Your task to perform on an android device: Show the shopping cart on newegg.com. Add "razer naga" to the cart on newegg.com, then select checkout. Image 0: 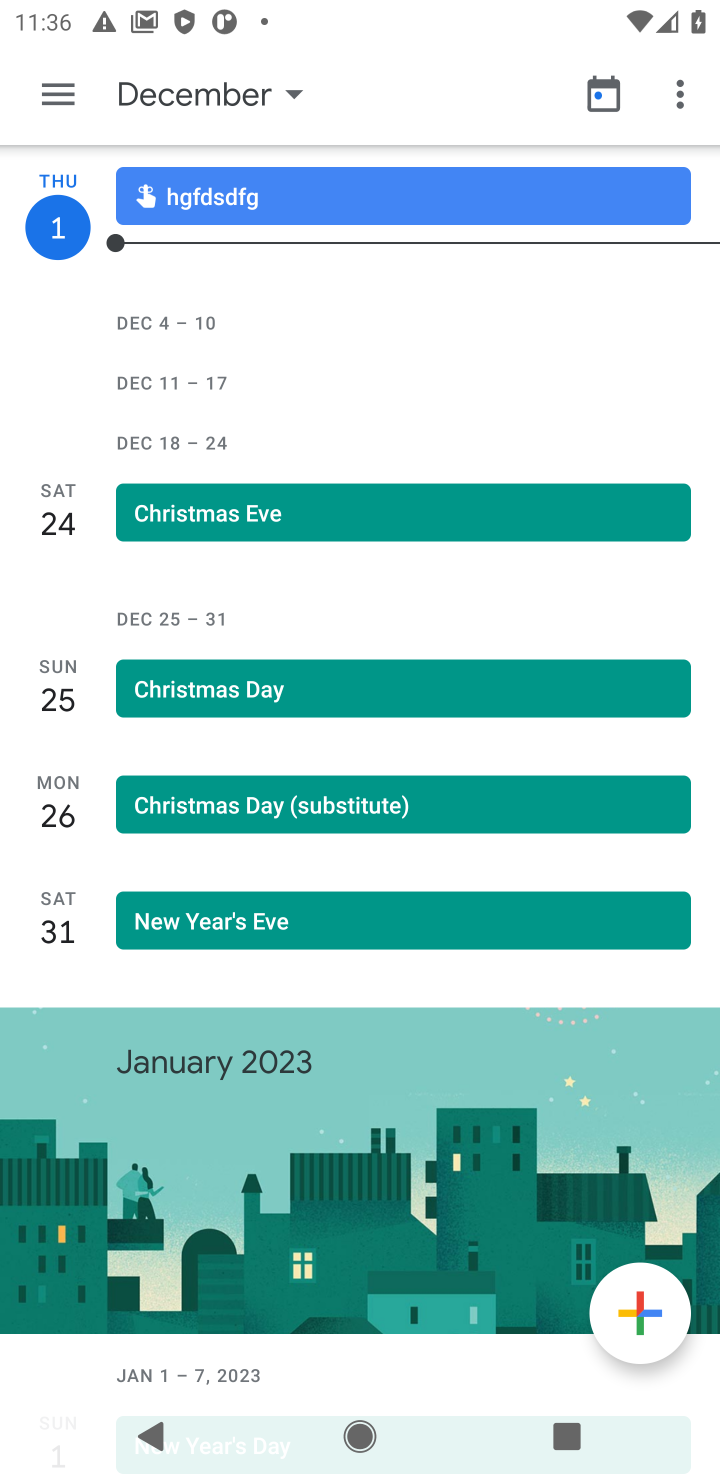
Step 0: press home button
Your task to perform on an android device: Show the shopping cart on newegg.com. Add "razer naga" to the cart on newegg.com, then select checkout. Image 1: 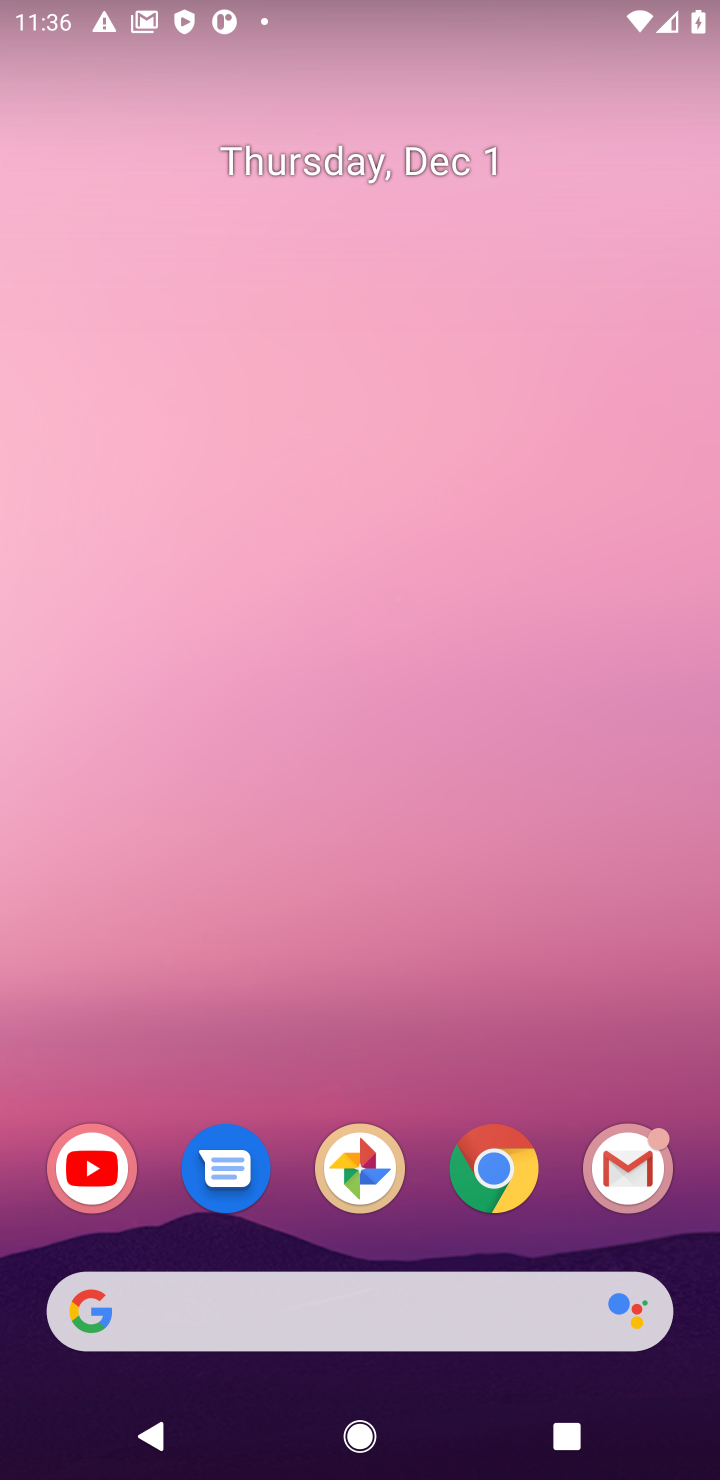
Step 1: click (496, 1175)
Your task to perform on an android device: Show the shopping cart on newegg.com. Add "razer naga" to the cart on newegg.com, then select checkout. Image 2: 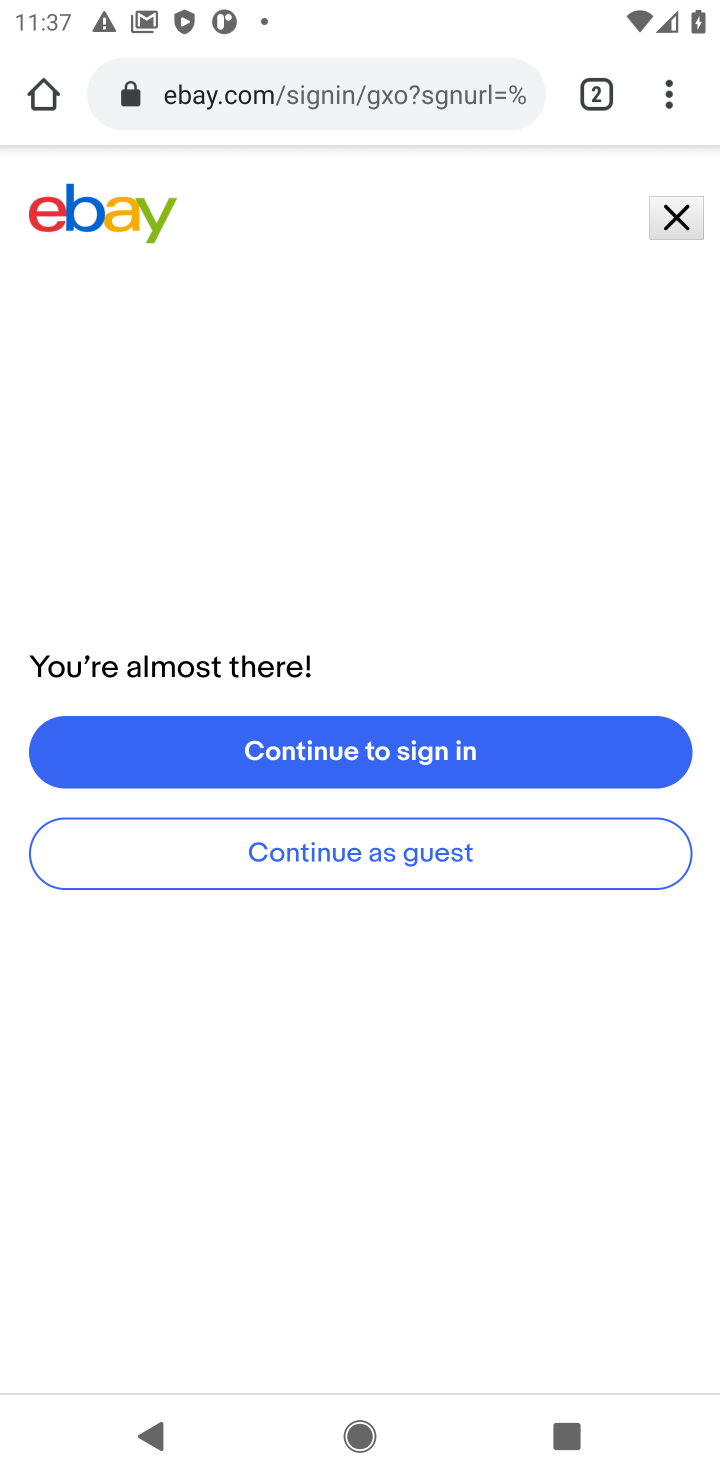
Step 2: click (321, 97)
Your task to perform on an android device: Show the shopping cart on newegg.com. Add "razer naga" to the cart on newegg.com, then select checkout. Image 3: 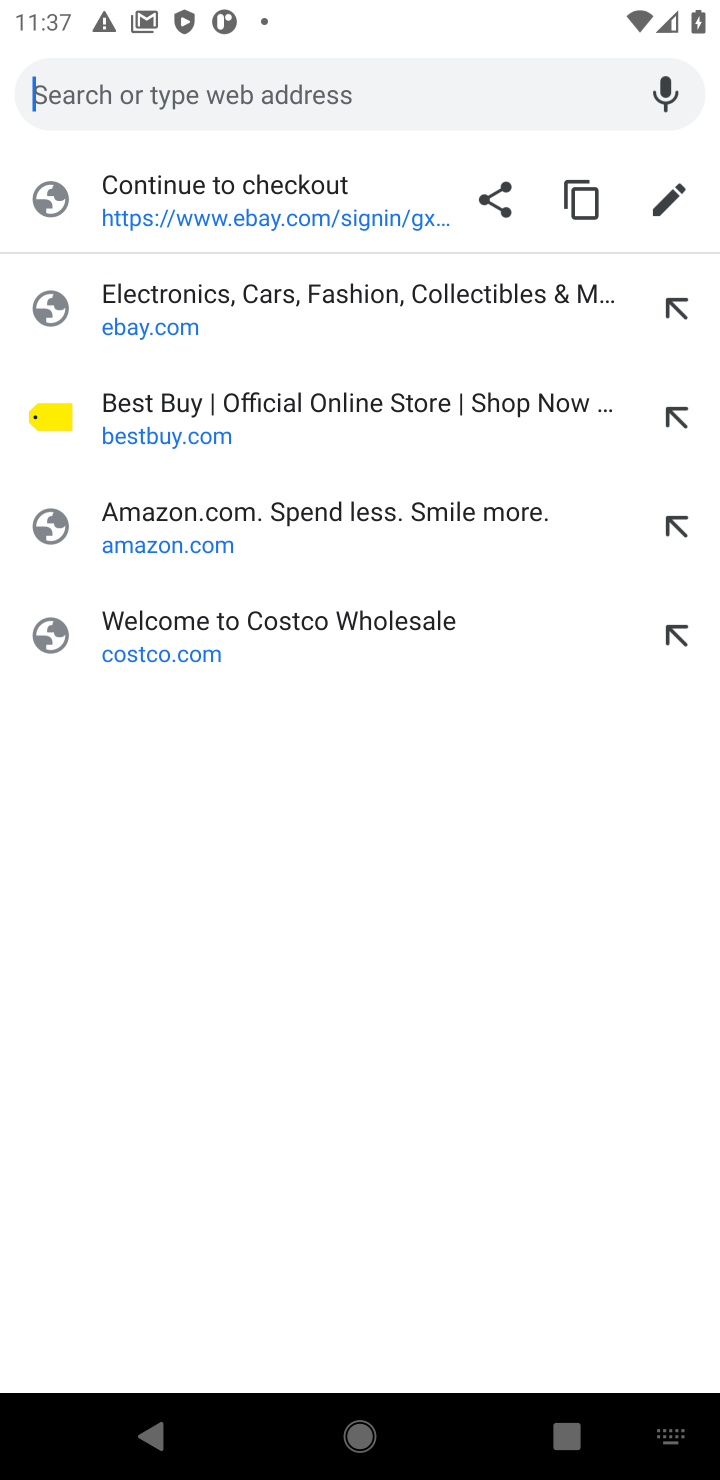
Step 3: type "newegg.com"
Your task to perform on an android device: Show the shopping cart on newegg.com. Add "razer naga" to the cart on newegg.com, then select checkout. Image 4: 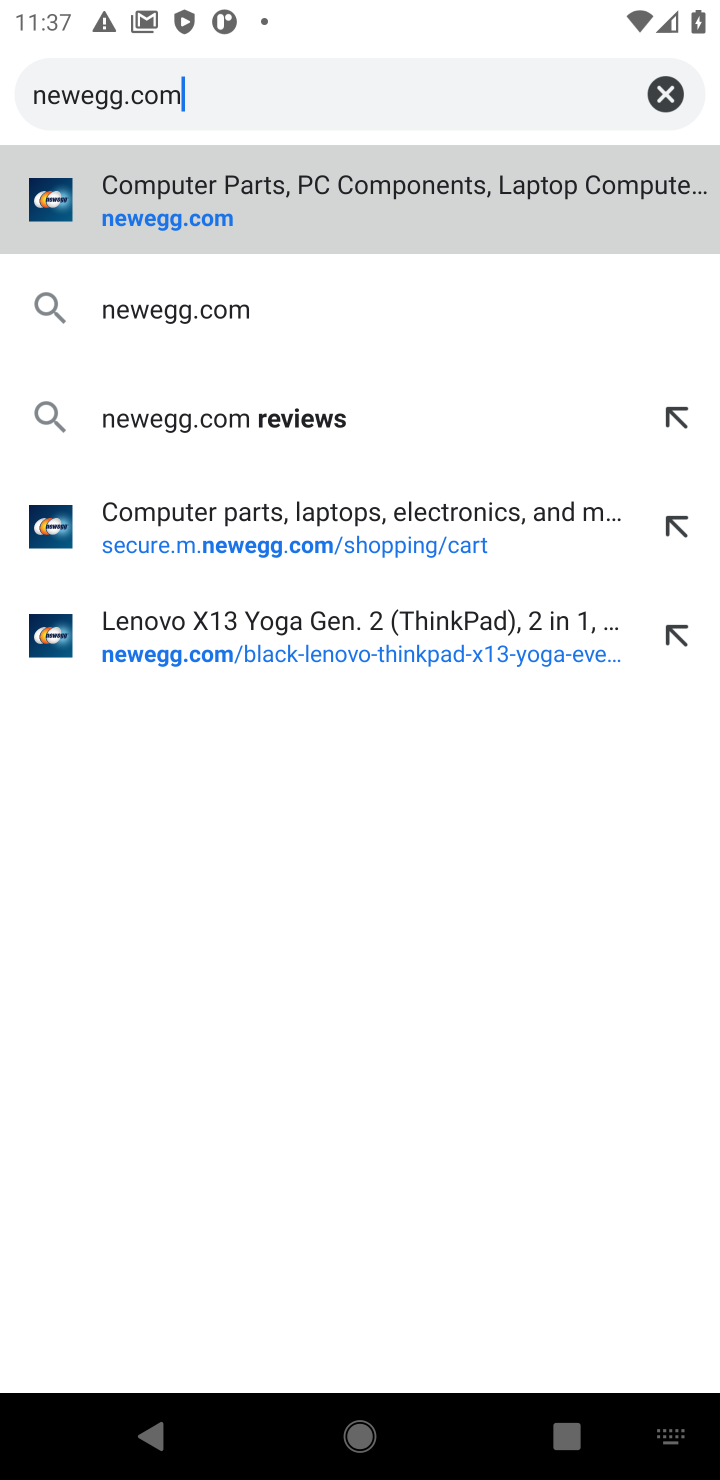
Step 4: click (128, 213)
Your task to perform on an android device: Show the shopping cart on newegg.com. Add "razer naga" to the cart on newegg.com, then select checkout. Image 5: 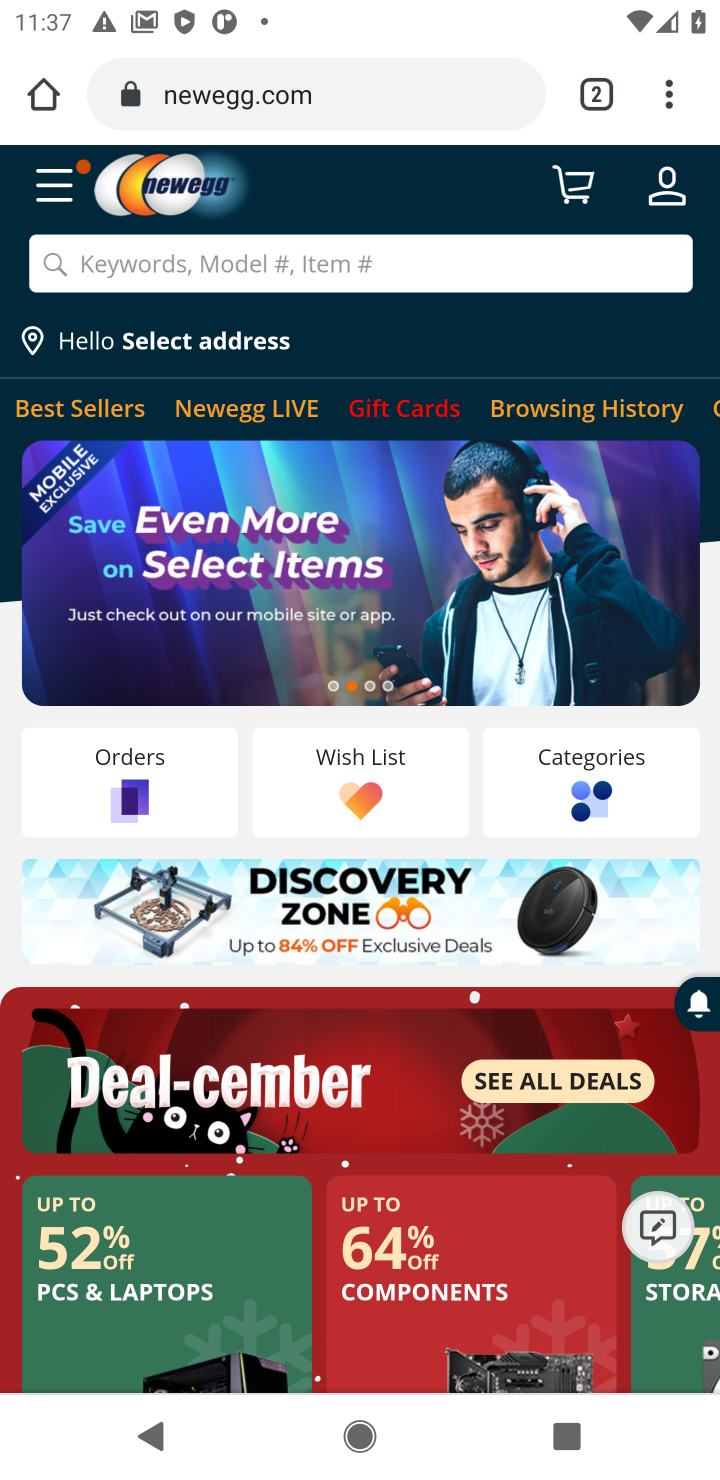
Step 5: click (570, 188)
Your task to perform on an android device: Show the shopping cart on newegg.com. Add "razer naga" to the cart on newegg.com, then select checkout. Image 6: 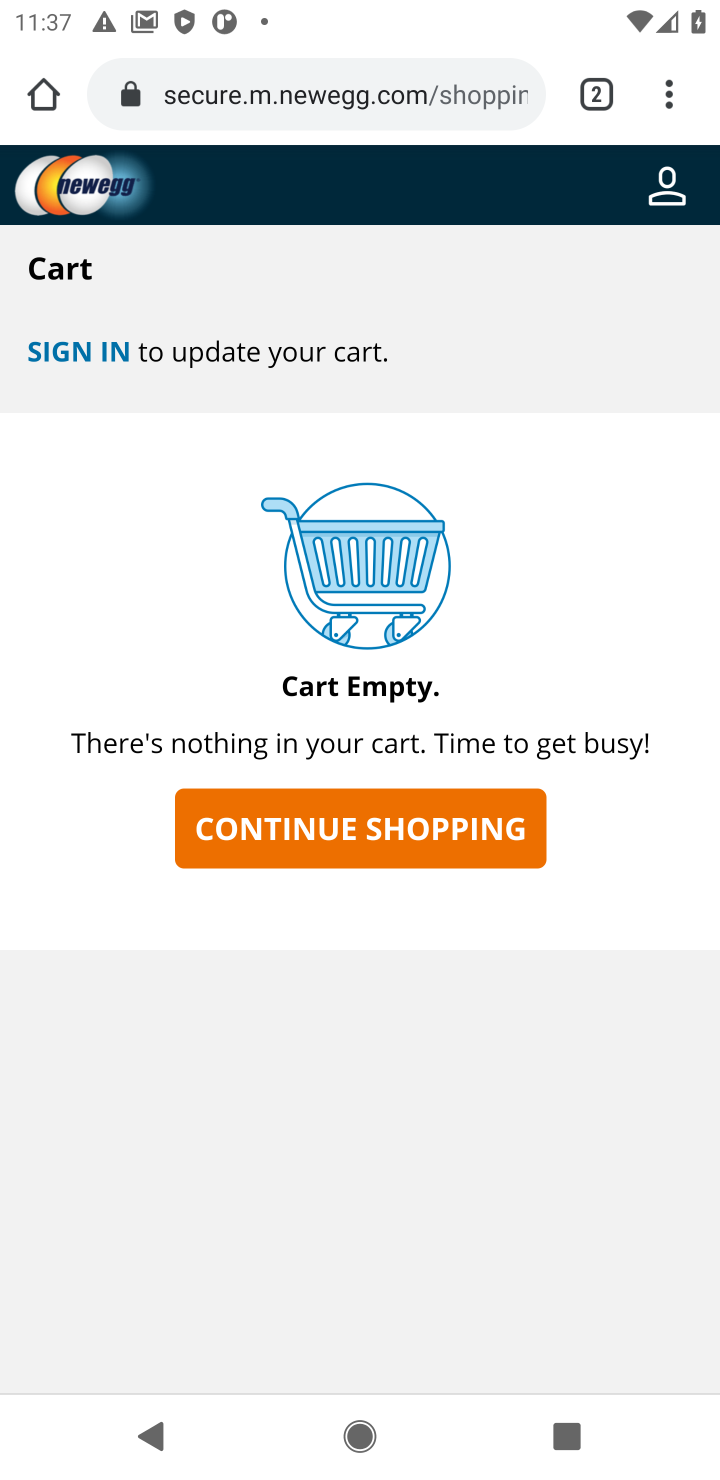
Step 6: click (382, 829)
Your task to perform on an android device: Show the shopping cart on newegg.com. Add "razer naga" to the cart on newegg.com, then select checkout. Image 7: 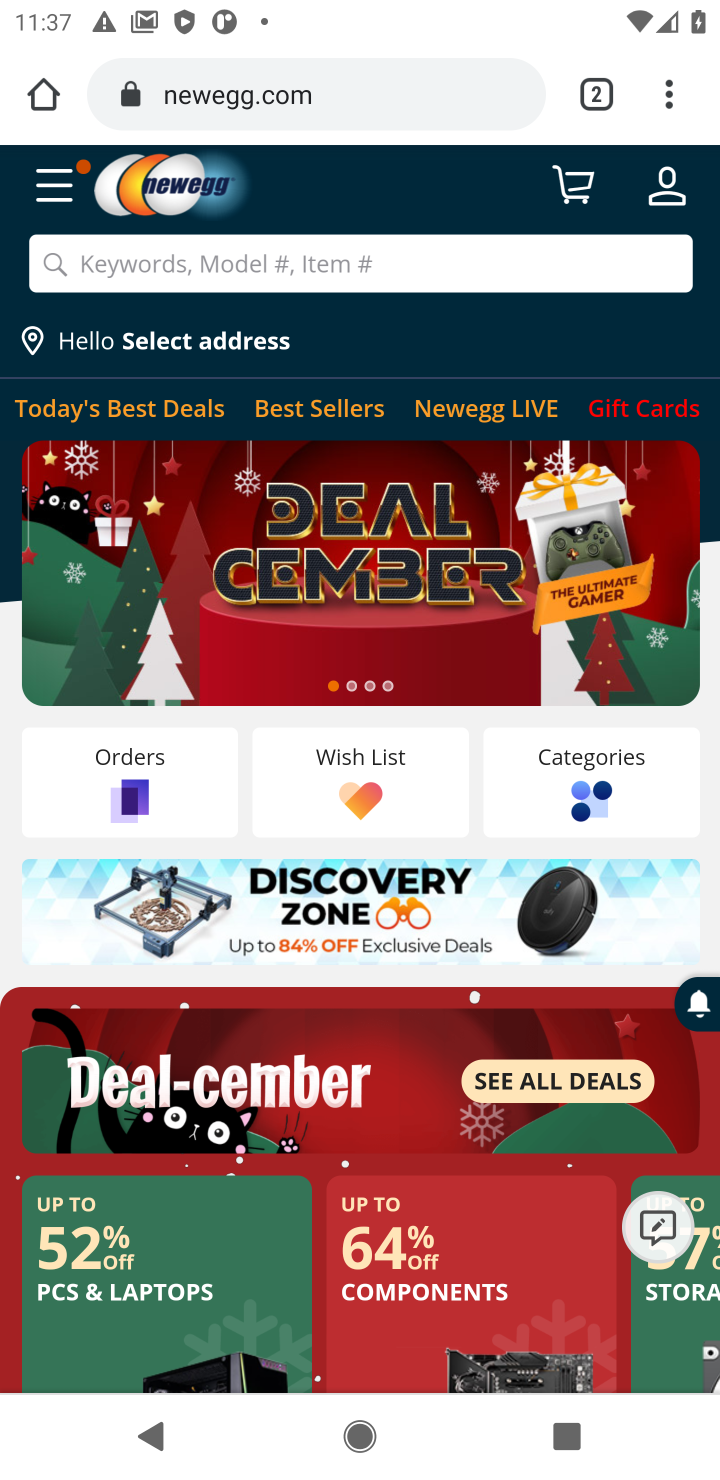
Step 7: click (114, 278)
Your task to perform on an android device: Show the shopping cart on newegg.com. Add "razer naga" to the cart on newegg.com, then select checkout. Image 8: 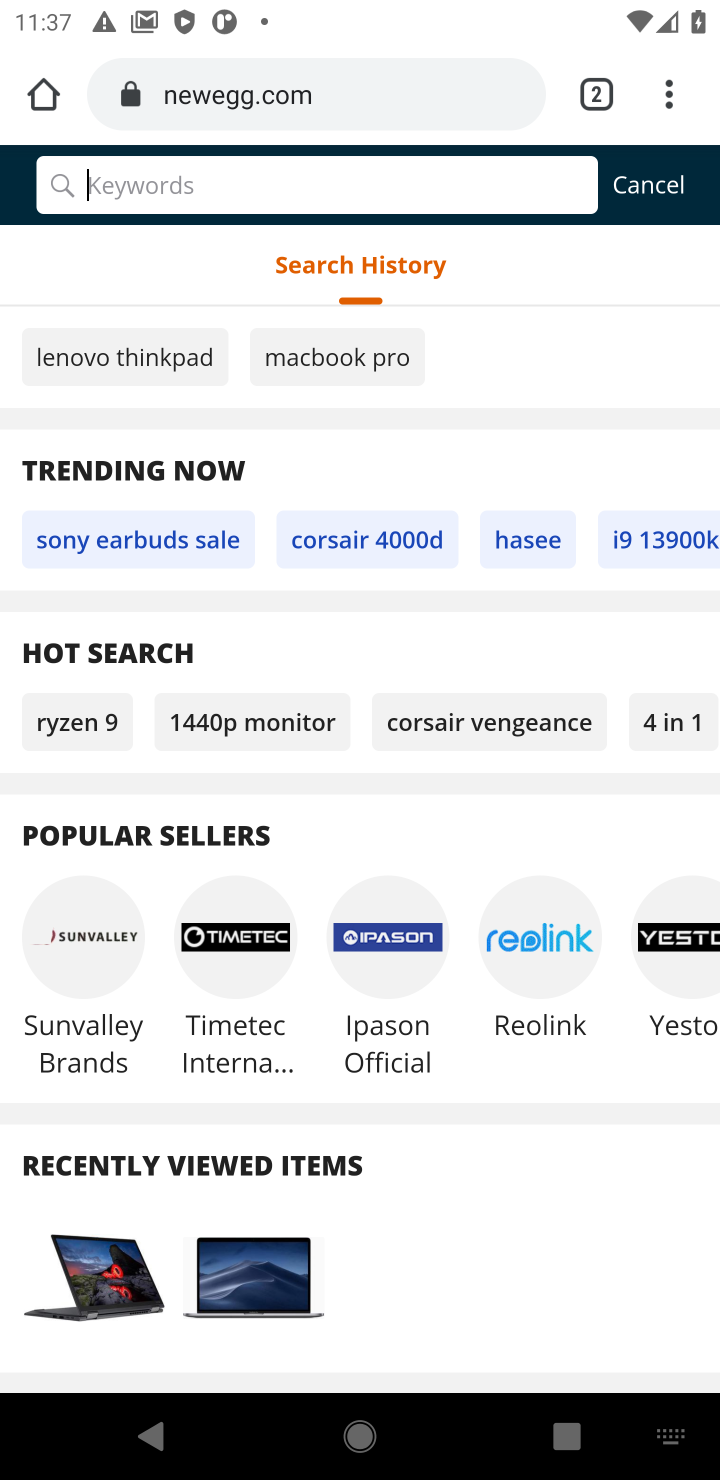
Step 8: type "razer naga"
Your task to perform on an android device: Show the shopping cart on newegg.com. Add "razer naga" to the cart on newegg.com, then select checkout. Image 9: 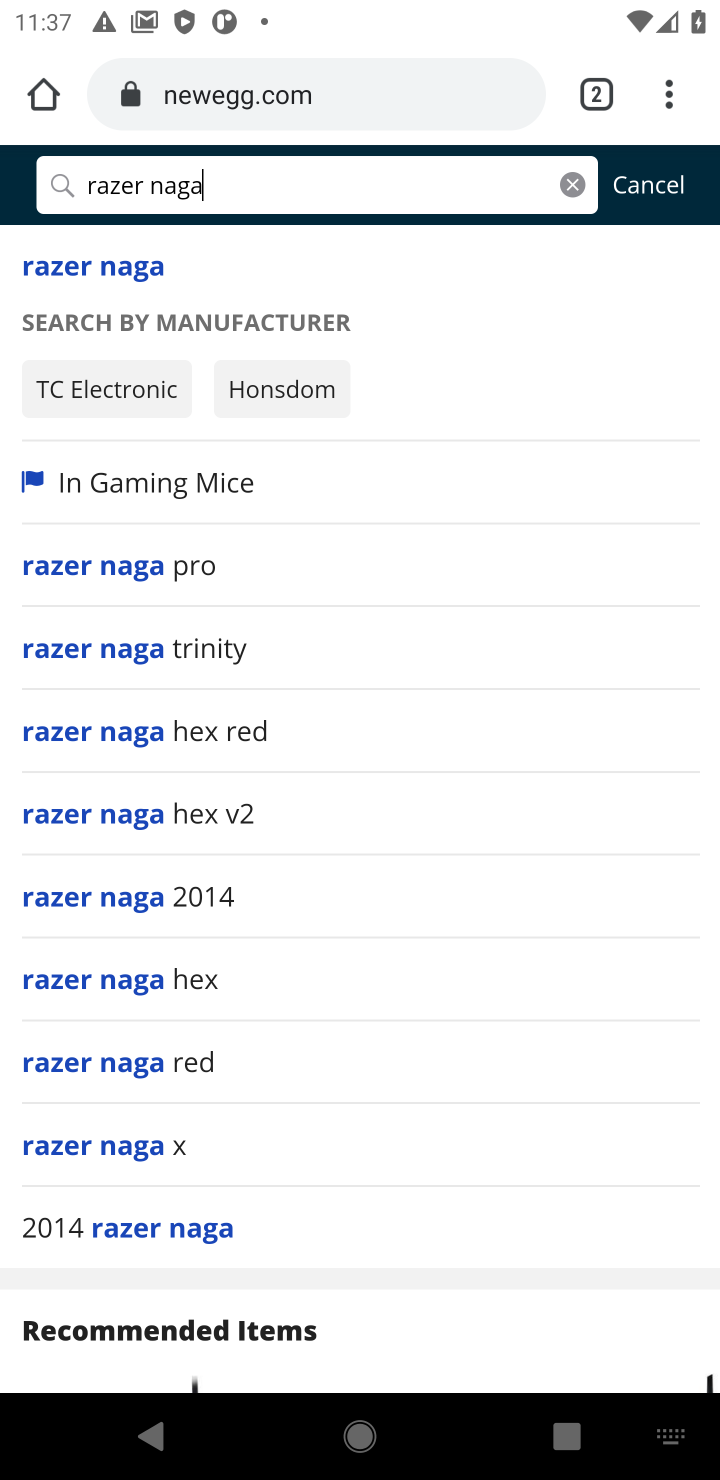
Step 9: click (106, 270)
Your task to perform on an android device: Show the shopping cart on newegg.com. Add "razer naga" to the cart on newegg.com, then select checkout. Image 10: 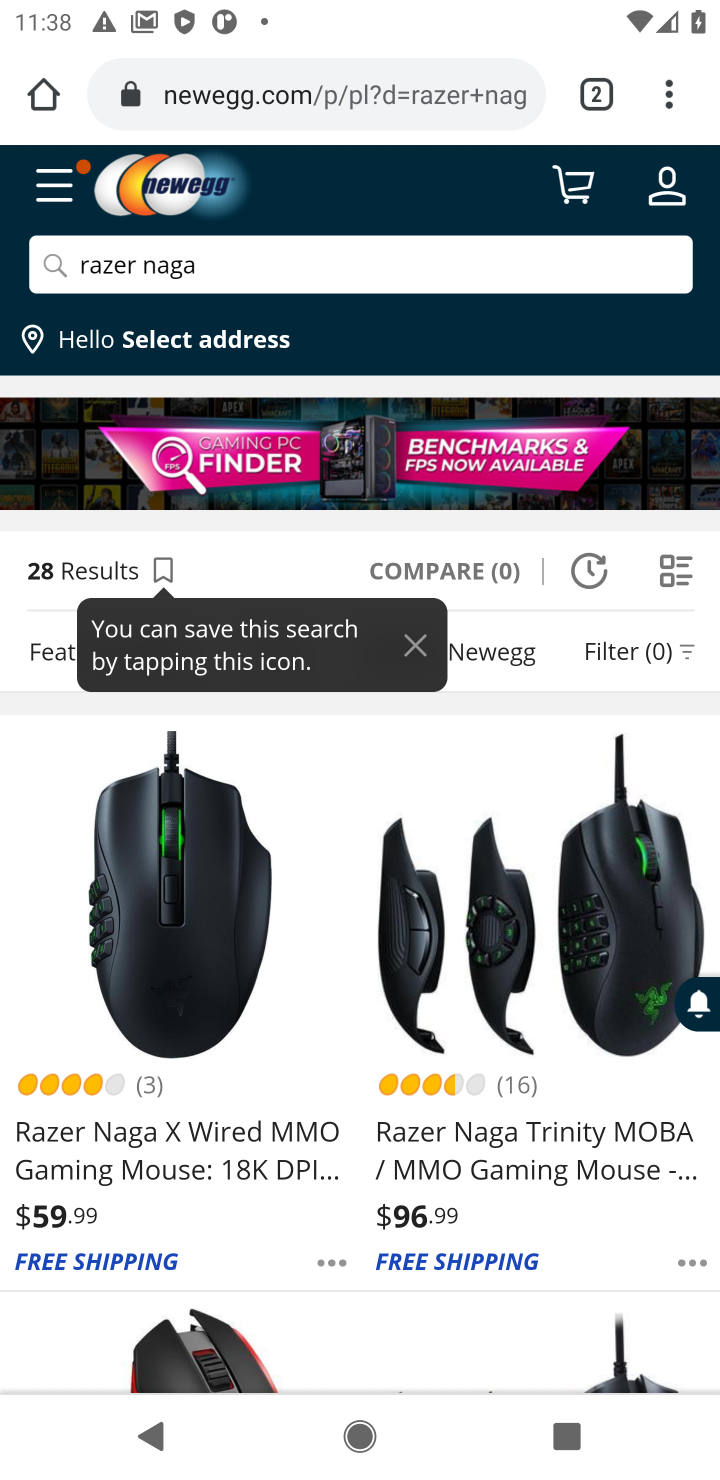
Step 10: click (169, 1038)
Your task to perform on an android device: Show the shopping cart on newegg.com. Add "razer naga" to the cart on newegg.com, then select checkout. Image 11: 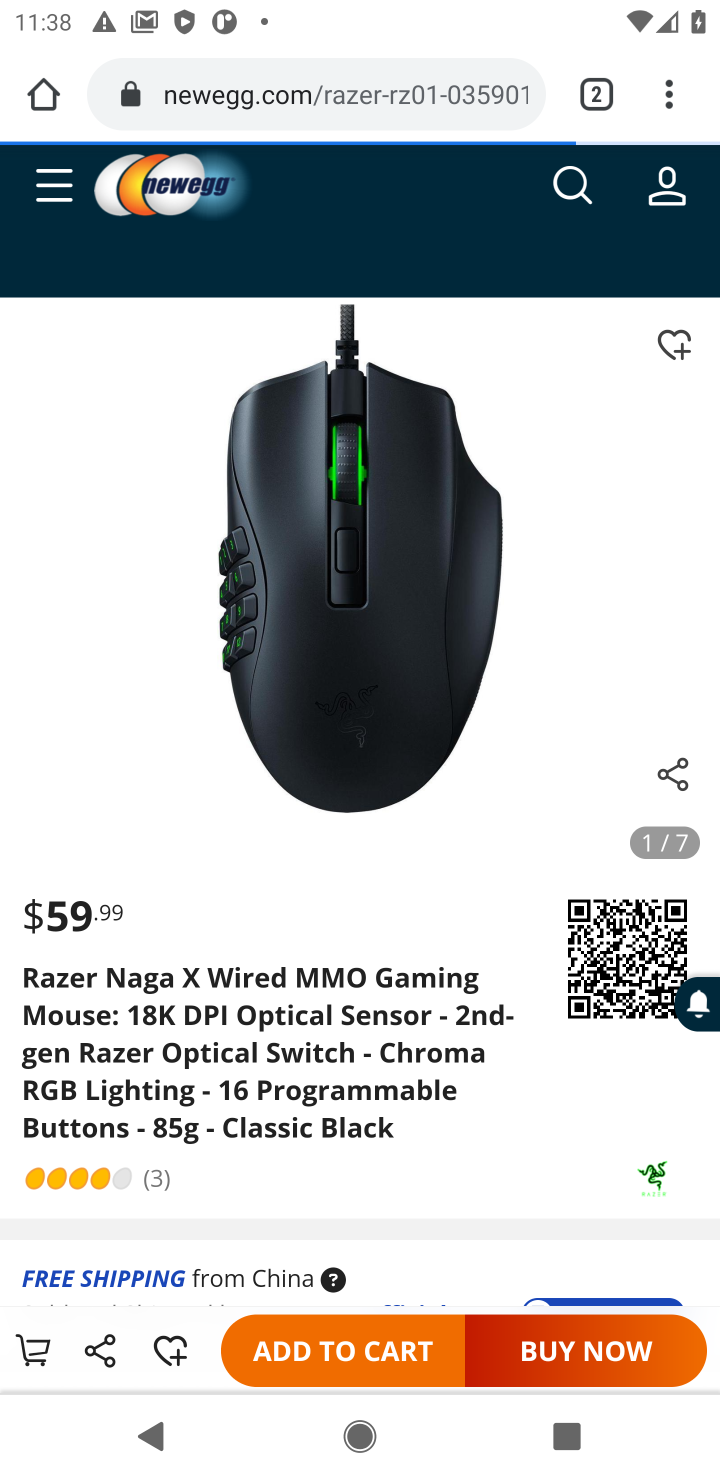
Step 11: click (299, 1349)
Your task to perform on an android device: Show the shopping cart on newegg.com. Add "razer naga" to the cart on newegg.com, then select checkout. Image 12: 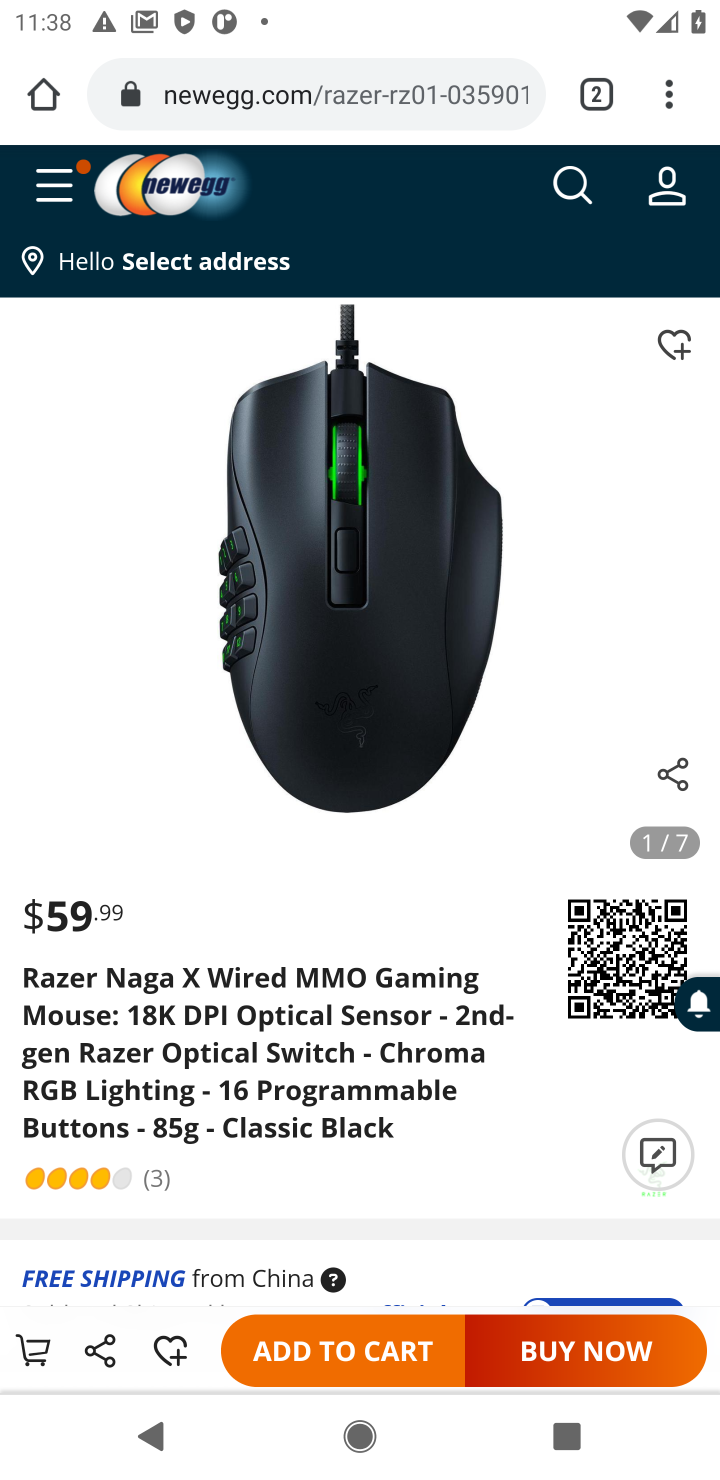
Step 12: click (335, 1351)
Your task to perform on an android device: Show the shopping cart on newegg.com. Add "razer naga" to the cart on newegg.com, then select checkout. Image 13: 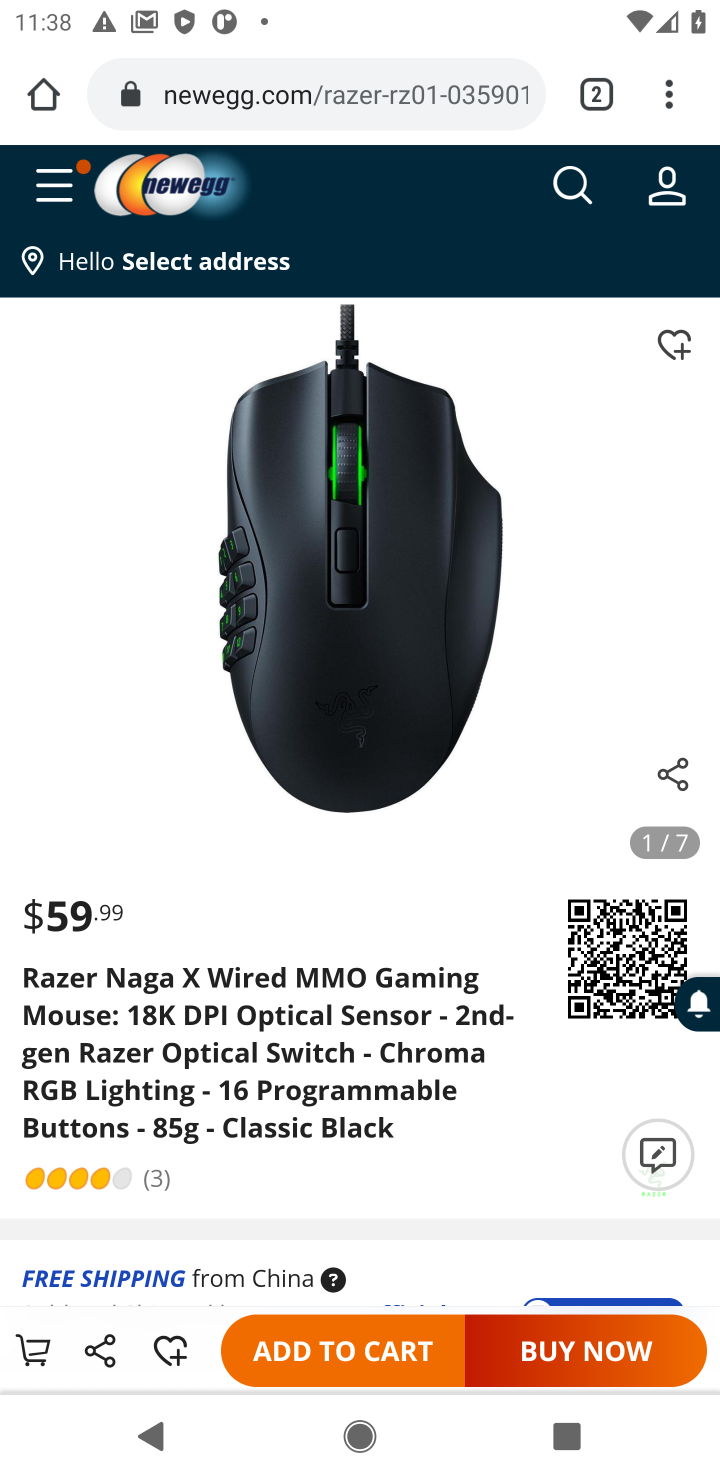
Step 13: click (352, 1347)
Your task to perform on an android device: Show the shopping cart on newegg.com. Add "razer naga" to the cart on newegg.com, then select checkout. Image 14: 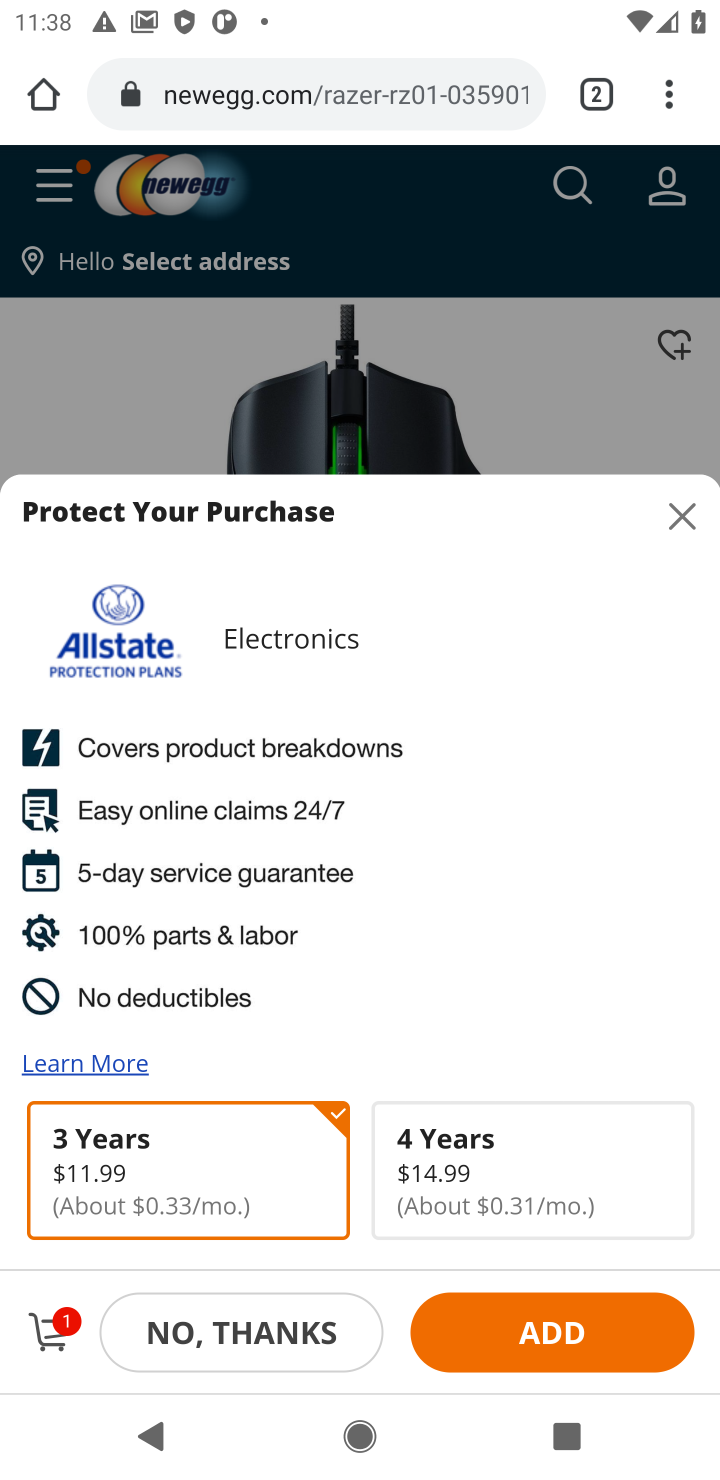
Step 14: click (36, 1345)
Your task to perform on an android device: Show the shopping cart on newegg.com. Add "razer naga" to the cart on newegg.com, then select checkout. Image 15: 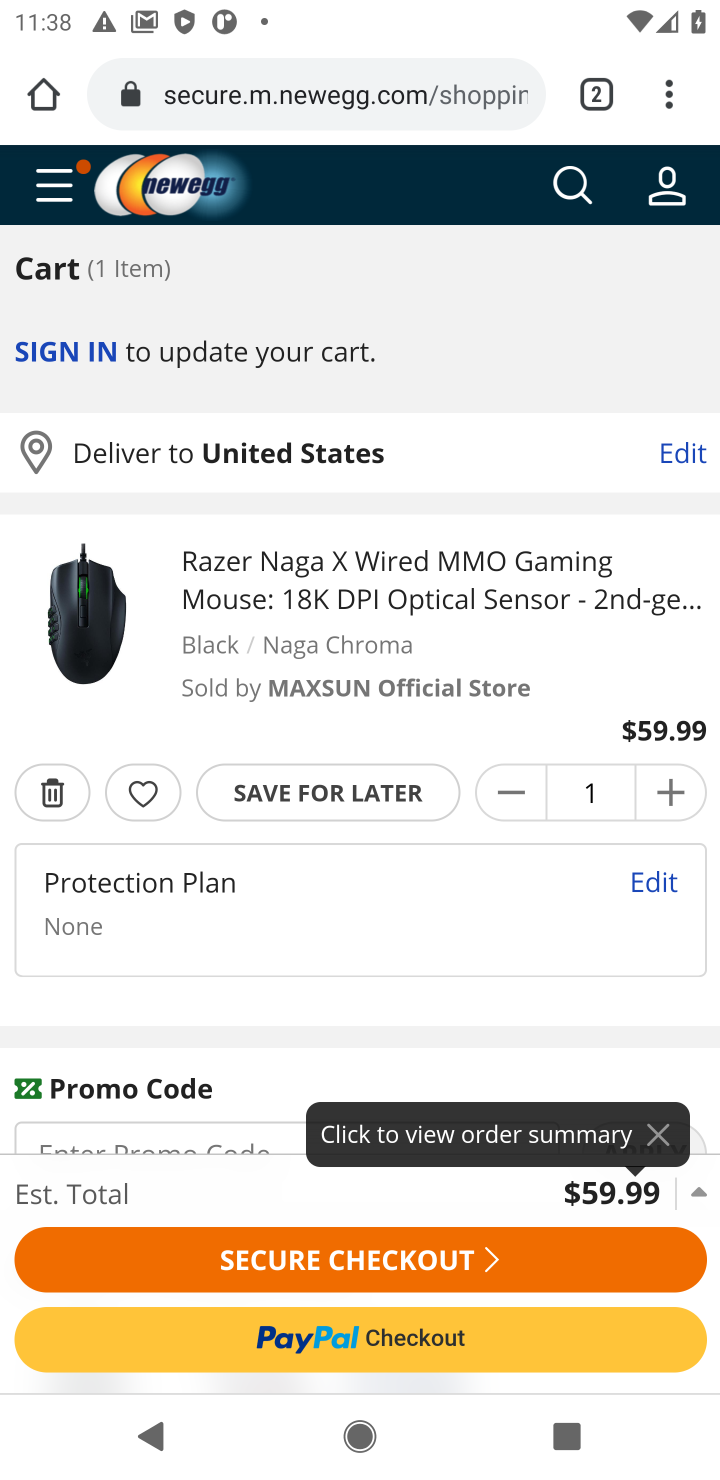
Step 15: click (367, 1254)
Your task to perform on an android device: Show the shopping cart on newegg.com. Add "razer naga" to the cart on newegg.com, then select checkout. Image 16: 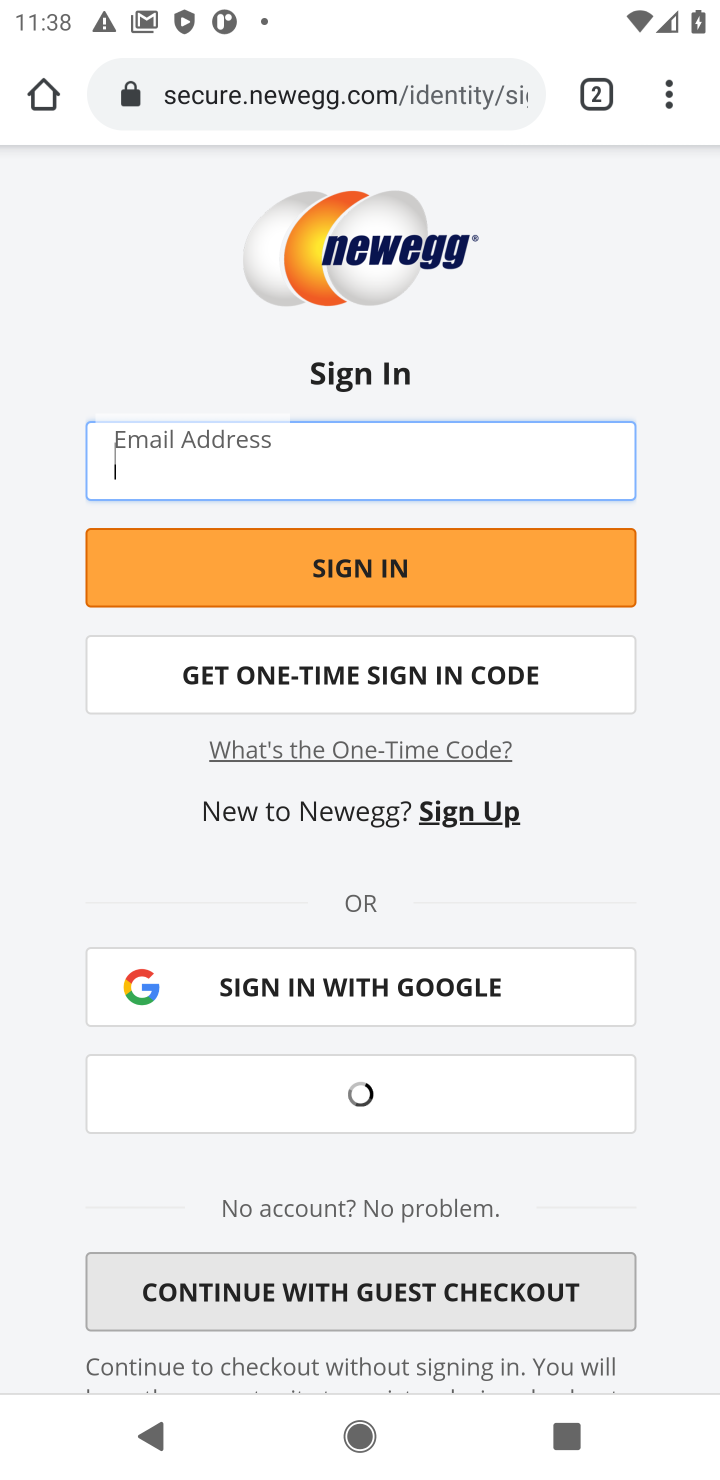
Step 16: task complete